Your task to perform on an android device: see sites visited before in the chrome app Image 0: 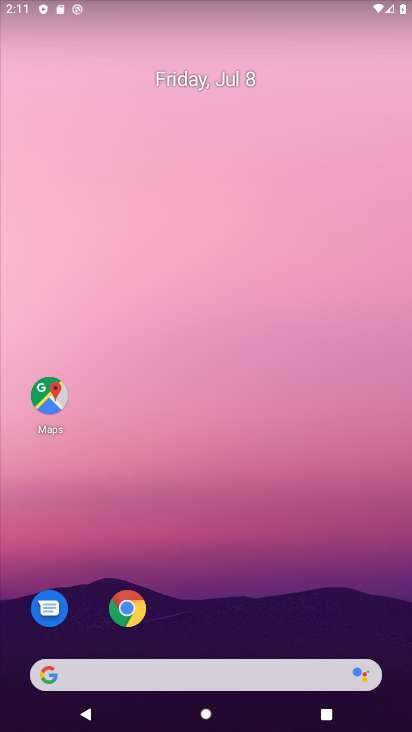
Step 0: click (124, 614)
Your task to perform on an android device: see sites visited before in the chrome app Image 1: 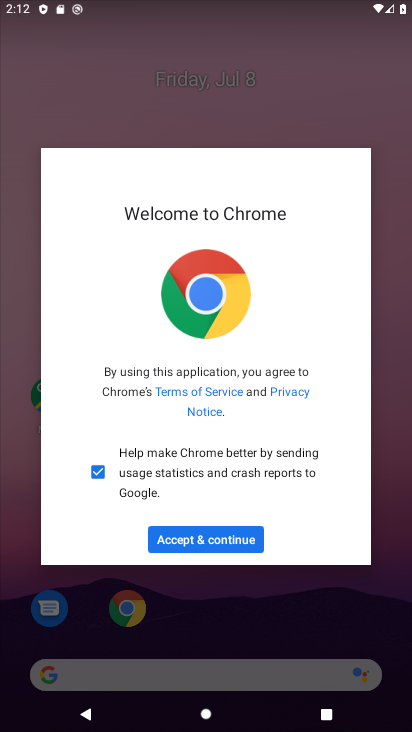
Step 1: click (216, 533)
Your task to perform on an android device: see sites visited before in the chrome app Image 2: 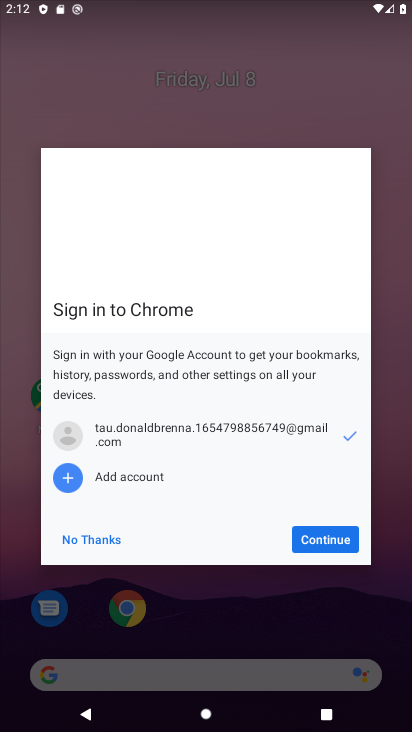
Step 2: click (340, 525)
Your task to perform on an android device: see sites visited before in the chrome app Image 3: 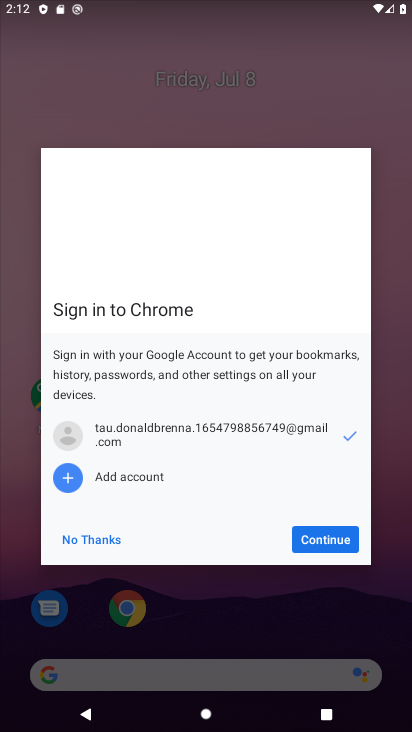
Step 3: click (346, 542)
Your task to perform on an android device: see sites visited before in the chrome app Image 4: 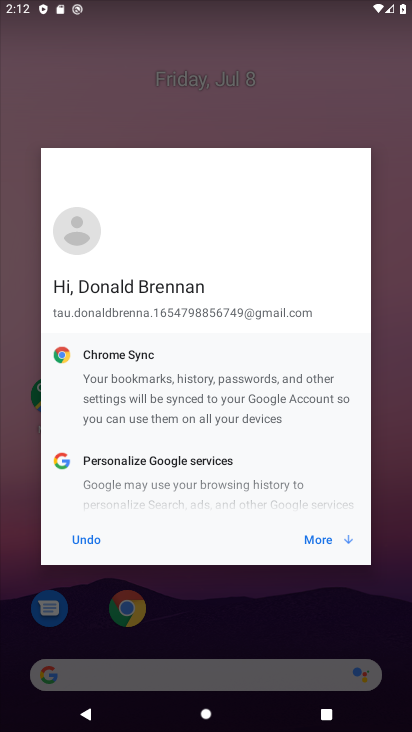
Step 4: click (346, 542)
Your task to perform on an android device: see sites visited before in the chrome app Image 5: 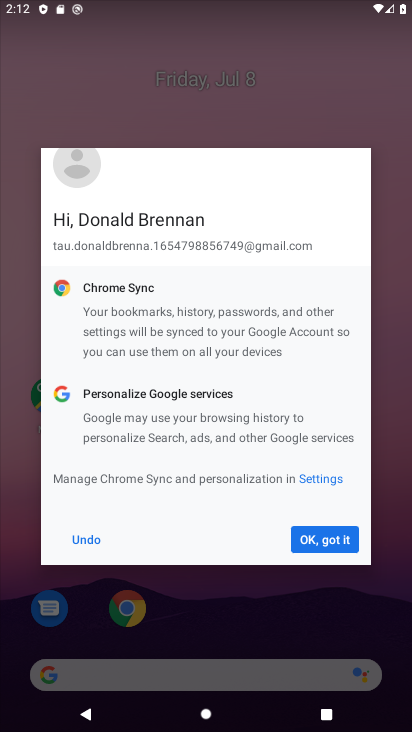
Step 5: click (338, 544)
Your task to perform on an android device: see sites visited before in the chrome app Image 6: 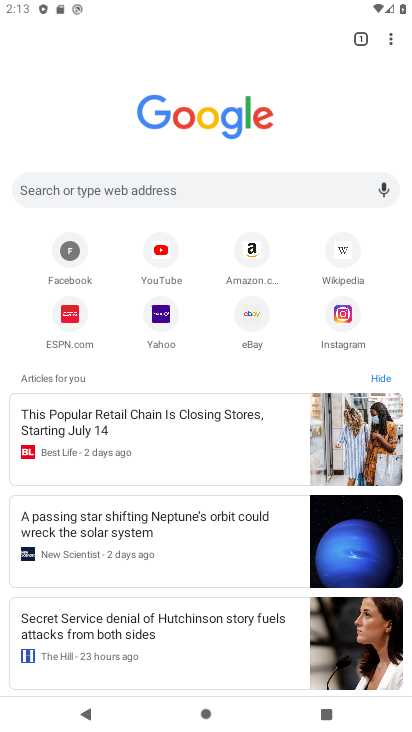
Step 6: click (389, 30)
Your task to perform on an android device: see sites visited before in the chrome app Image 7: 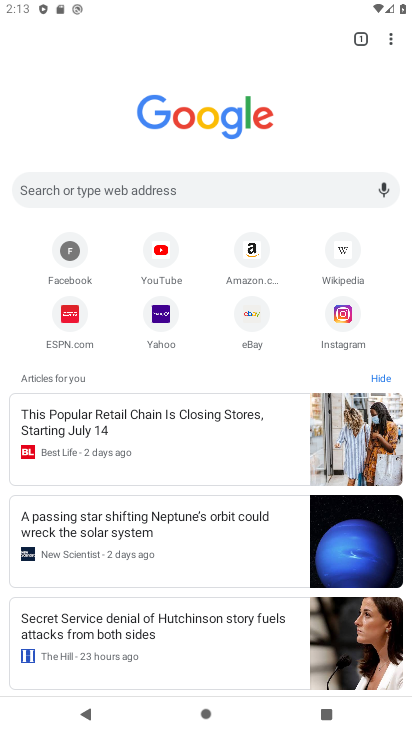
Step 7: click (390, 46)
Your task to perform on an android device: see sites visited before in the chrome app Image 8: 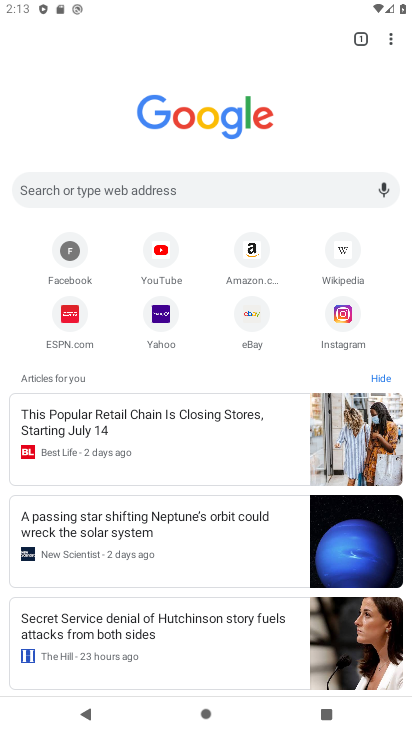
Step 8: click (390, 46)
Your task to perform on an android device: see sites visited before in the chrome app Image 9: 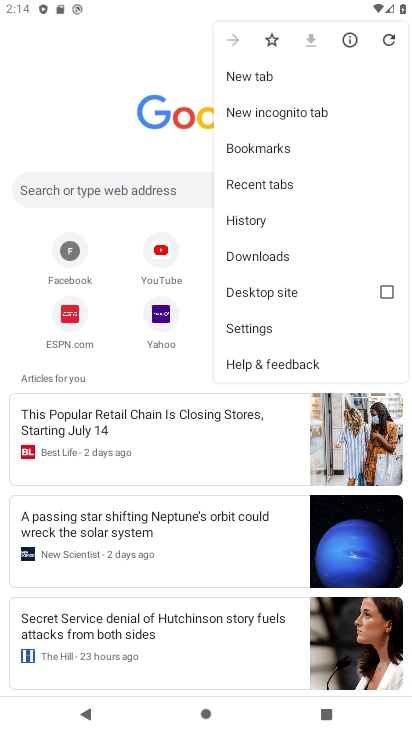
Step 9: click (280, 217)
Your task to perform on an android device: see sites visited before in the chrome app Image 10: 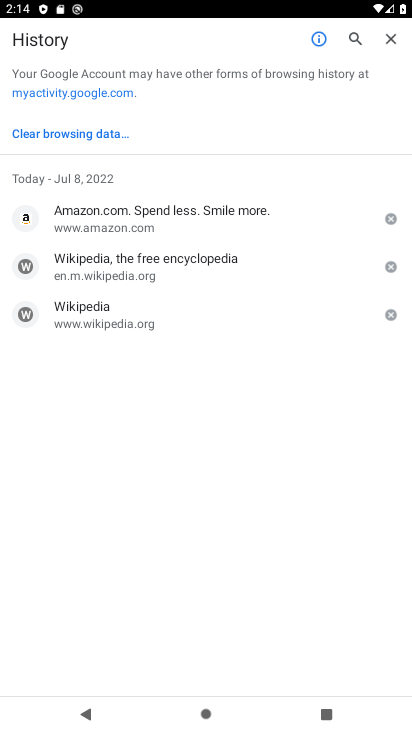
Step 10: task complete